Your task to perform on an android device: Show me productivity apps on the Play Store Image 0: 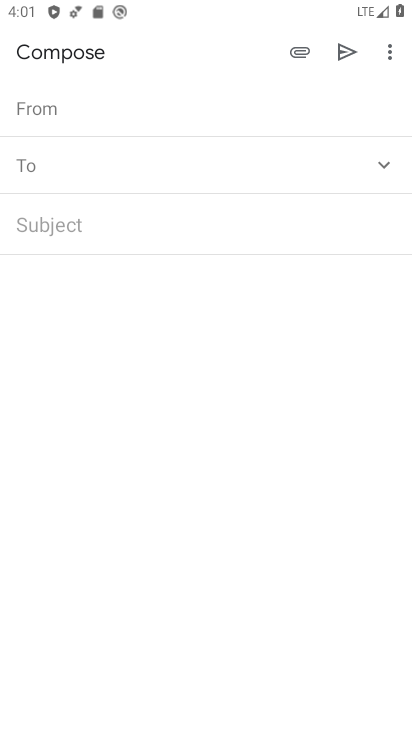
Step 0: drag from (288, 597) to (220, 65)
Your task to perform on an android device: Show me productivity apps on the Play Store Image 1: 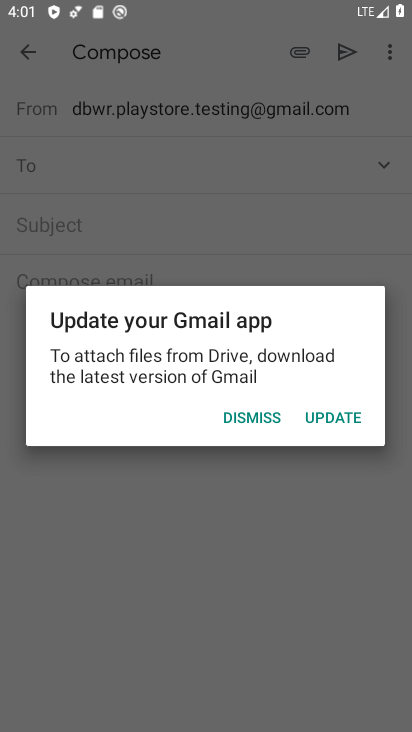
Step 1: click (265, 418)
Your task to perform on an android device: Show me productivity apps on the Play Store Image 2: 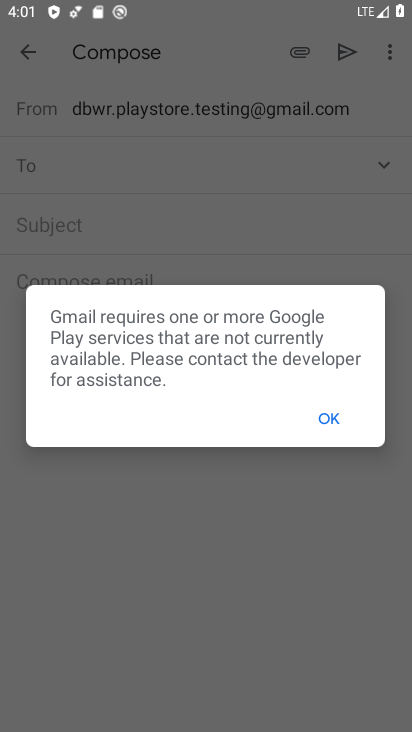
Step 2: click (342, 419)
Your task to perform on an android device: Show me productivity apps on the Play Store Image 3: 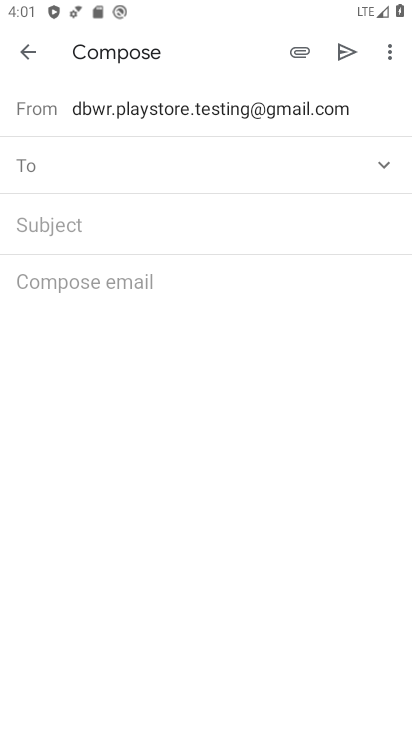
Step 3: press home button
Your task to perform on an android device: Show me productivity apps on the Play Store Image 4: 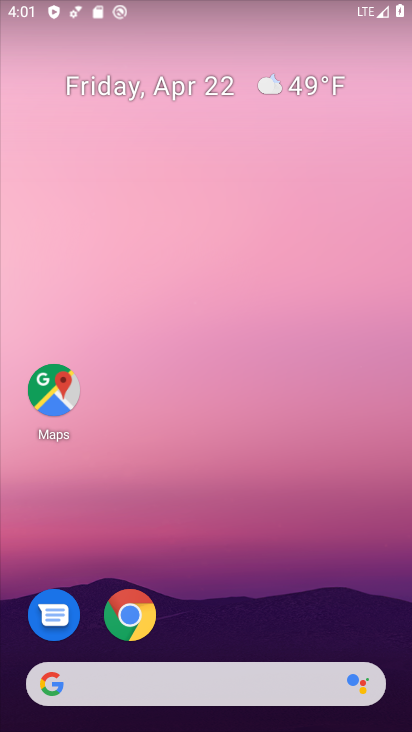
Step 4: drag from (308, 585) to (210, 55)
Your task to perform on an android device: Show me productivity apps on the Play Store Image 5: 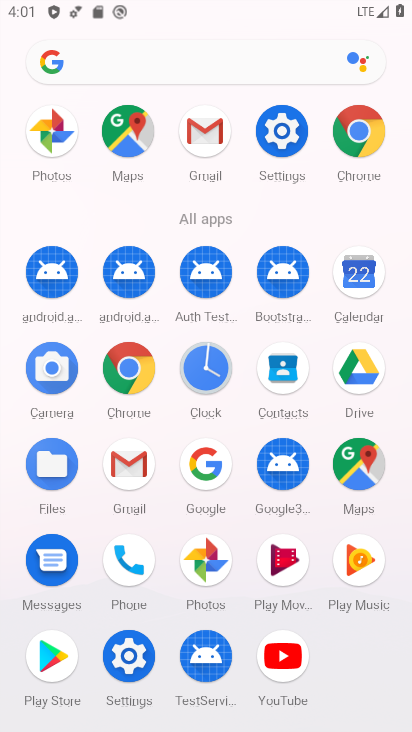
Step 5: click (43, 647)
Your task to perform on an android device: Show me productivity apps on the Play Store Image 6: 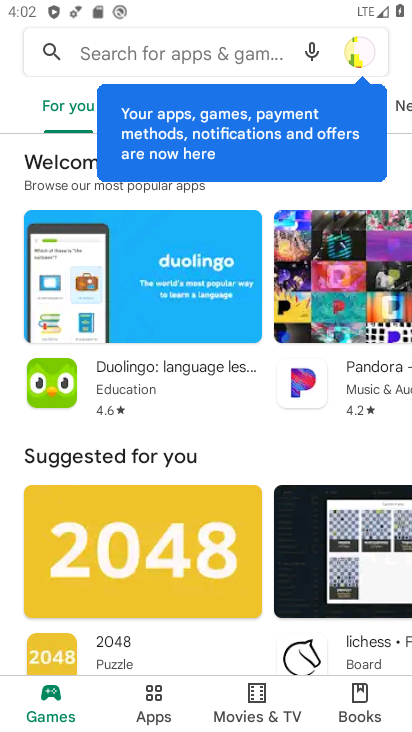
Step 6: drag from (404, 110) to (260, 153)
Your task to perform on an android device: Show me productivity apps on the Play Store Image 7: 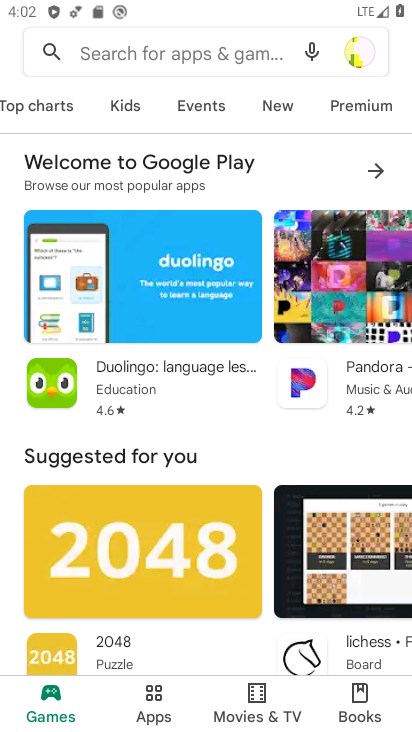
Step 7: click (167, 706)
Your task to perform on an android device: Show me productivity apps on the Play Store Image 8: 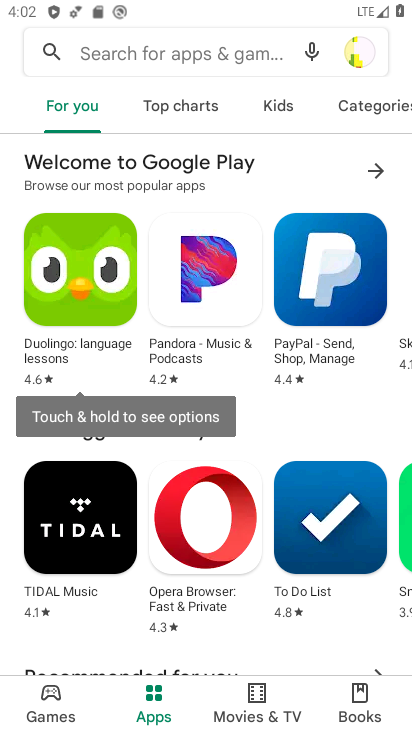
Step 8: click (358, 111)
Your task to perform on an android device: Show me productivity apps on the Play Store Image 9: 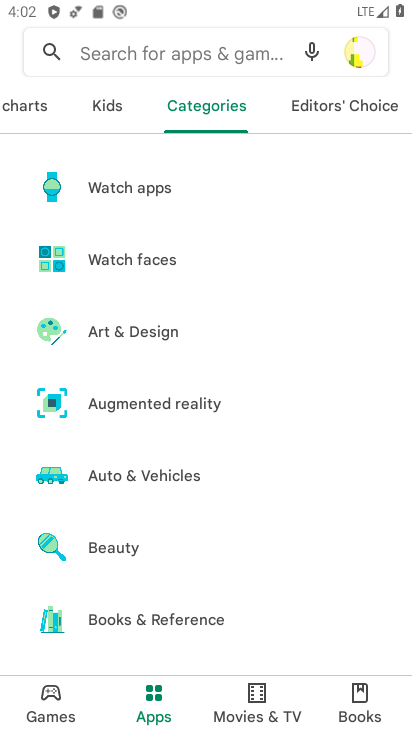
Step 9: drag from (198, 568) to (146, 6)
Your task to perform on an android device: Show me productivity apps on the Play Store Image 10: 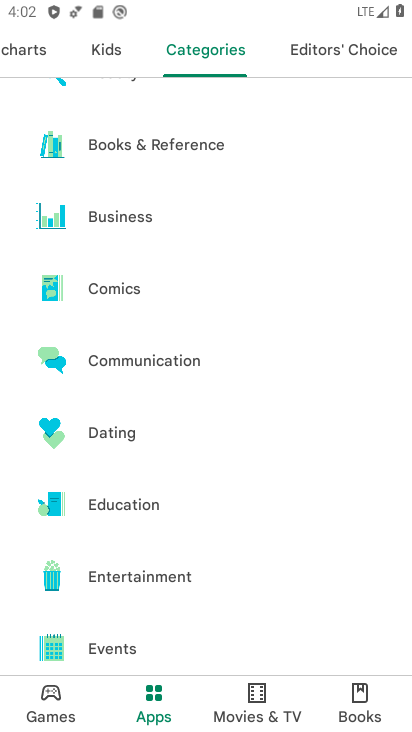
Step 10: drag from (188, 672) to (174, 72)
Your task to perform on an android device: Show me productivity apps on the Play Store Image 11: 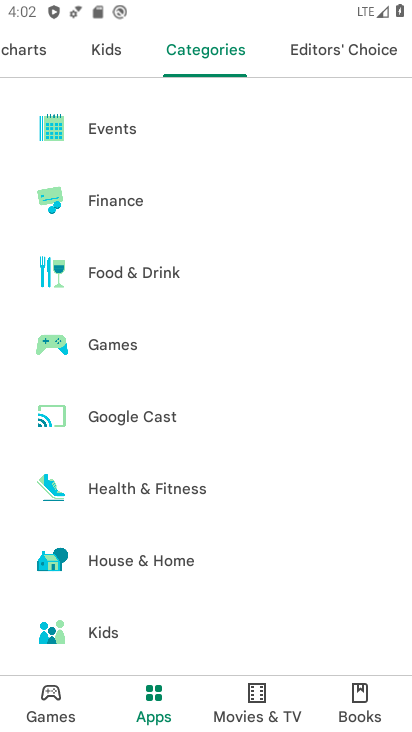
Step 11: drag from (176, 650) to (198, 25)
Your task to perform on an android device: Show me productivity apps on the Play Store Image 12: 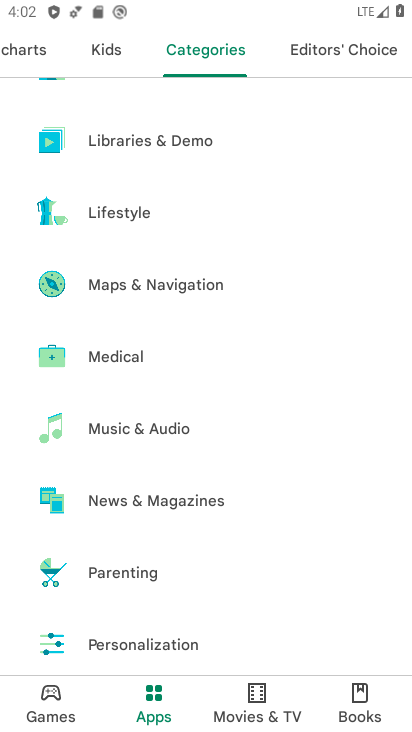
Step 12: drag from (199, 612) to (225, 176)
Your task to perform on an android device: Show me productivity apps on the Play Store Image 13: 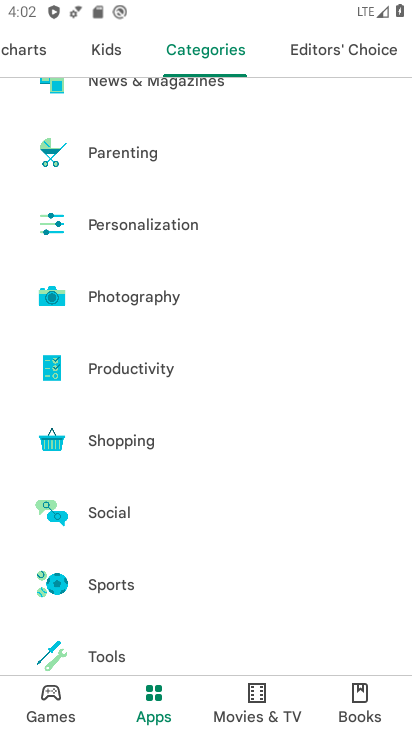
Step 13: drag from (214, 663) to (194, 160)
Your task to perform on an android device: Show me productivity apps on the Play Store Image 14: 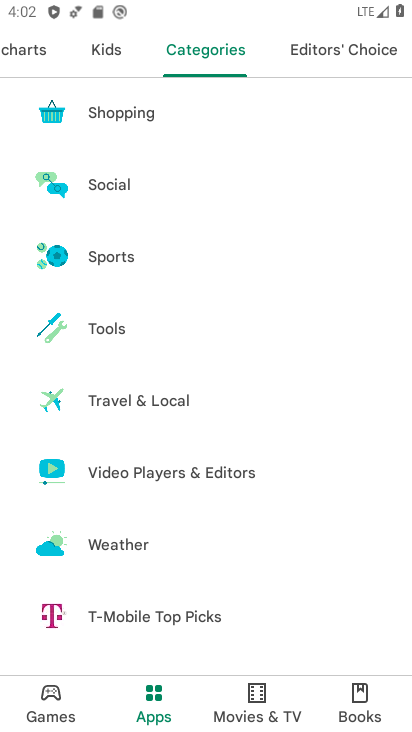
Step 14: drag from (142, 173) to (131, 472)
Your task to perform on an android device: Show me productivity apps on the Play Store Image 15: 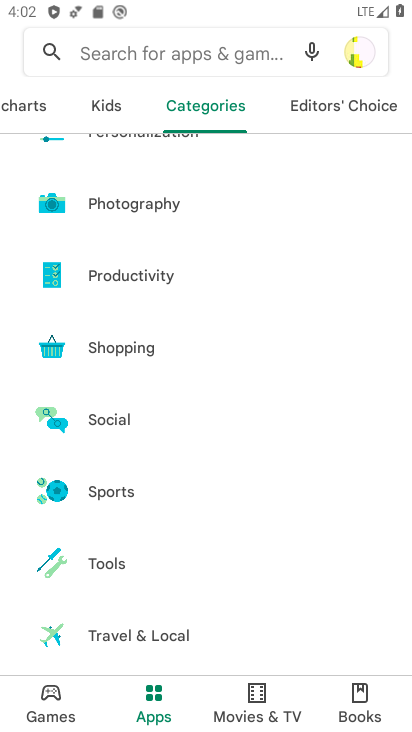
Step 15: click (114, 273)
Your task to perform on an android device: Show me productivity apps on the Play Store Image 16: 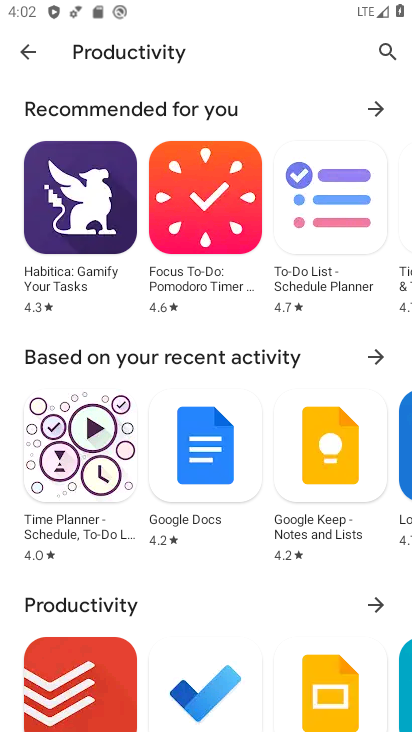
Step 16: task complete